Your task to perform on an android device: Search for Italian restaurants on Maps Image 0: 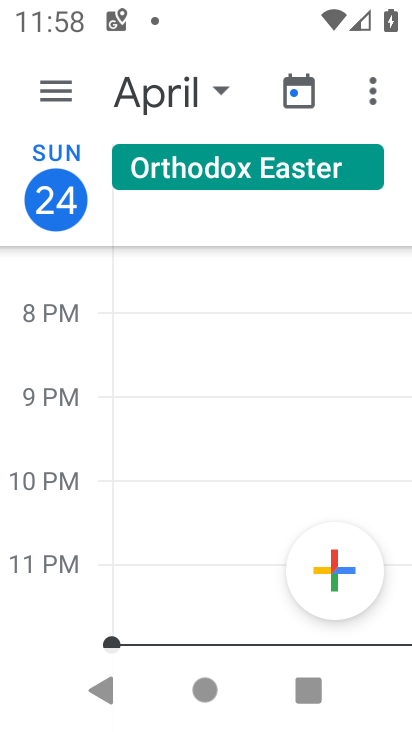
Step 0: press home button
Your task to perform on an android device: Search for Italian restaurants on Maps Image 1: 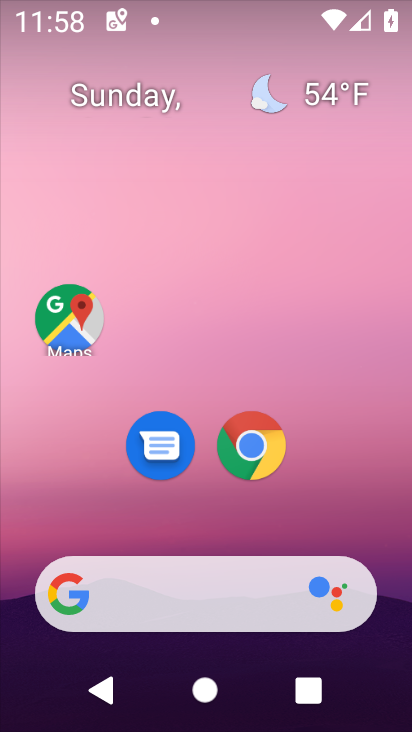
Step 1: drag from (372, 448) to (340, 120)
Your task to perform on an android device: Search for Italian restaurants on Maps Image 2: 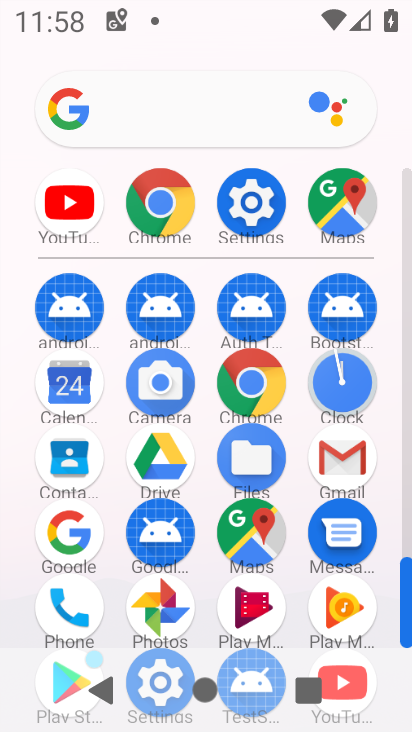
Step 2: click (256, 535)
Your task to perform on an android device: Search for Italian restaurants on Maps Image 3: 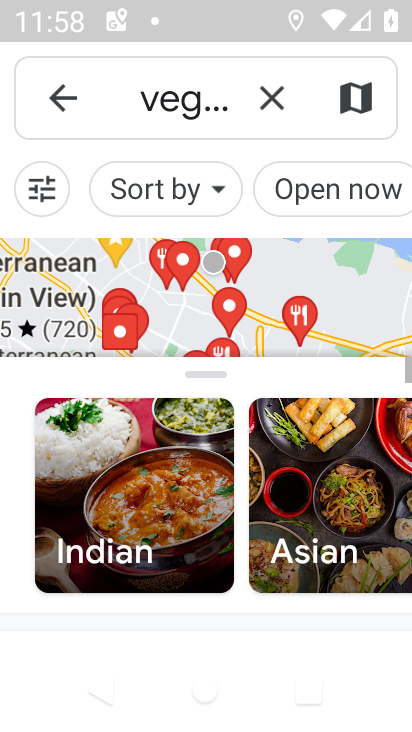
Step 3: click (273, 99)
Your task to perform on an android device: Search for Italian restaurants on Maps Image 4: 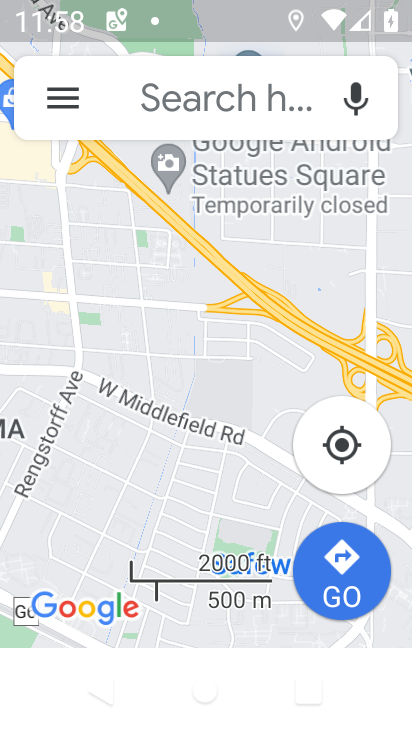
Step 4: click (156, 104)
Your task to perform on an android device: Search for Italian restaurants on Maps Image 5: 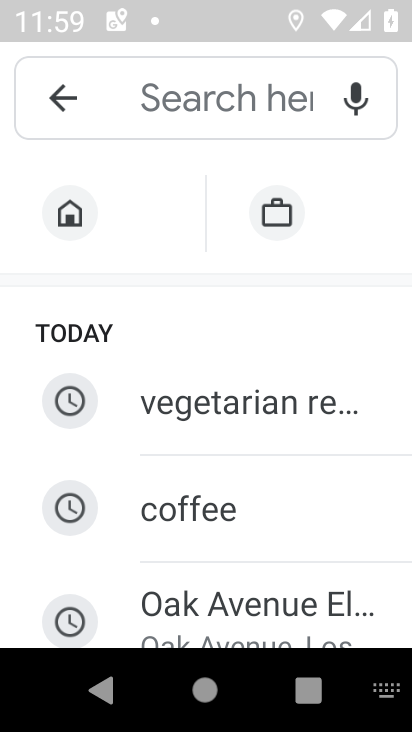
Step 5: type "italian restaurants"
Your task to perform on an android device: Search for Italian restaurants on Maps Image 6: 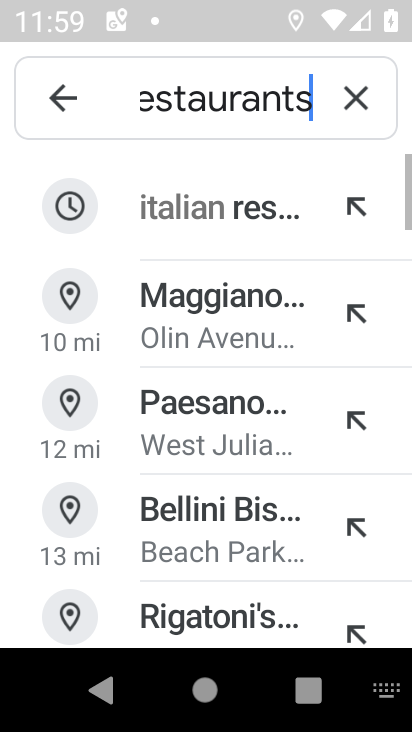
Step 6: click (196, 219)
Your task to perform on an android device: Search for Italian restaurants on Maps Image 7: 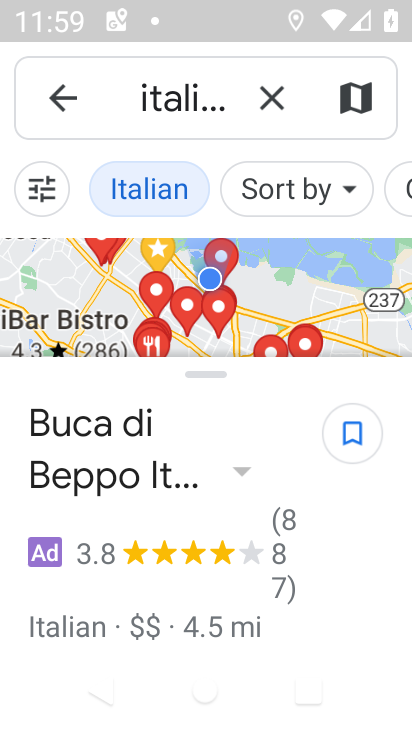
Step 7: task complete